Your task to perform on an android device: toggle notifications settings in the gmail app Image 0: 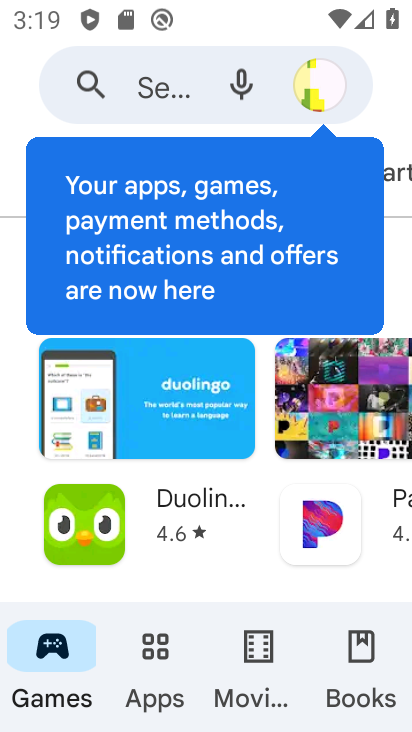
Step 0: press back button
Your task to perform on an android device: toggle notifications settings in the gmail app Image 1: 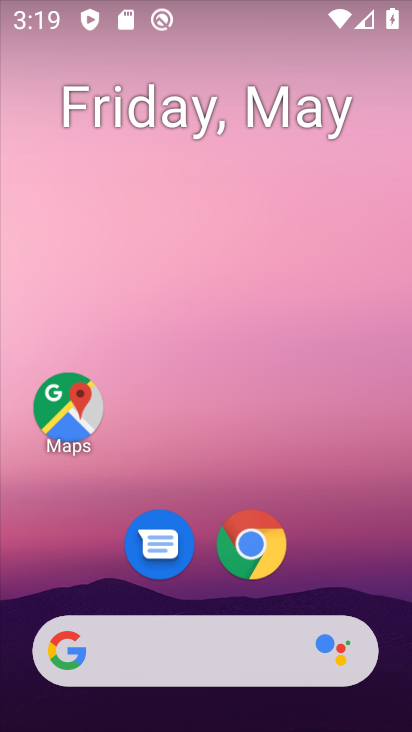
Step 1: drag from (257, 380) to (199, 124)
Your task to perform on an android device: toggle notifications settings in the gmail app Image 2: 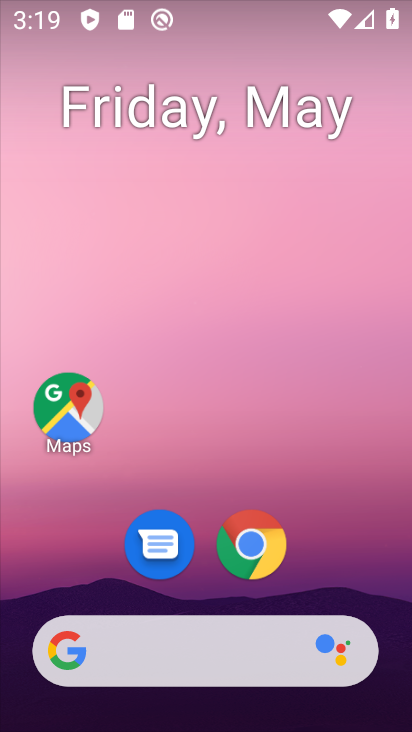
Step 2: drag from (270, 576) to (200, 2)
Your task to perform on an android device: toggle notifications settings in the gmail app Image 3: 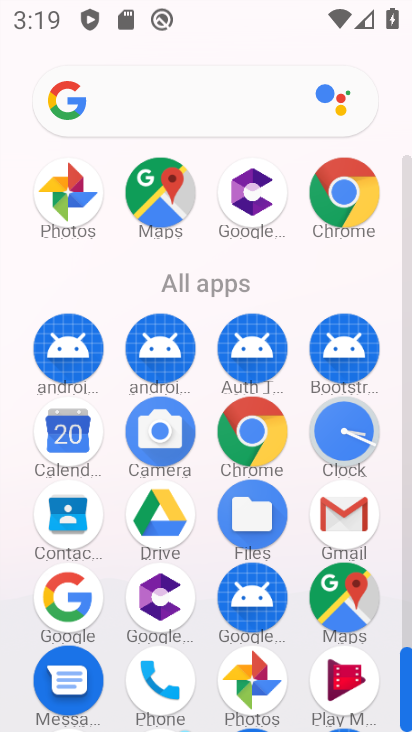
Step 3: click (354, 504)
Your task to perform on an android device: toggle notifications settings in the gmail app Image 4: 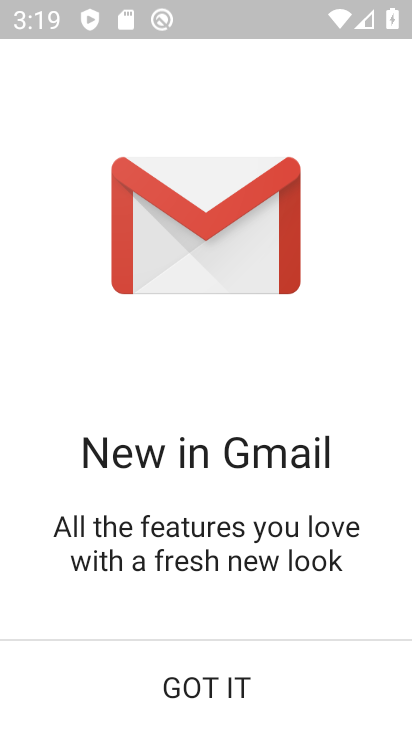
Step 4: click (299, 517)
Your task to perform on an android device: toggle notifications settings in the gmail app Image 5: 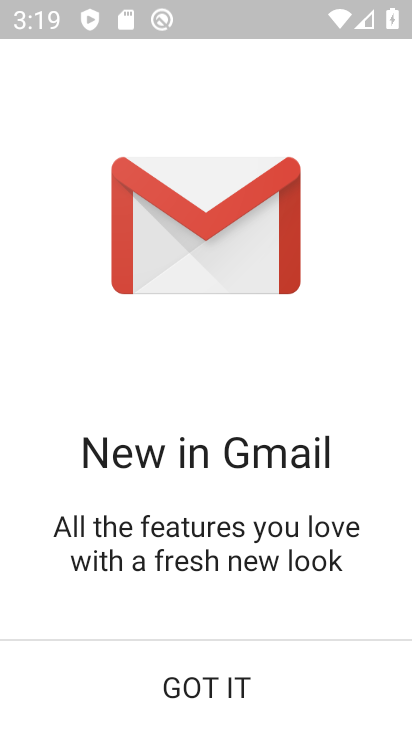
Step 5: click (299, 517)
Your task to perform on an android device: toggle notifications settings in the gmail app Image 6: 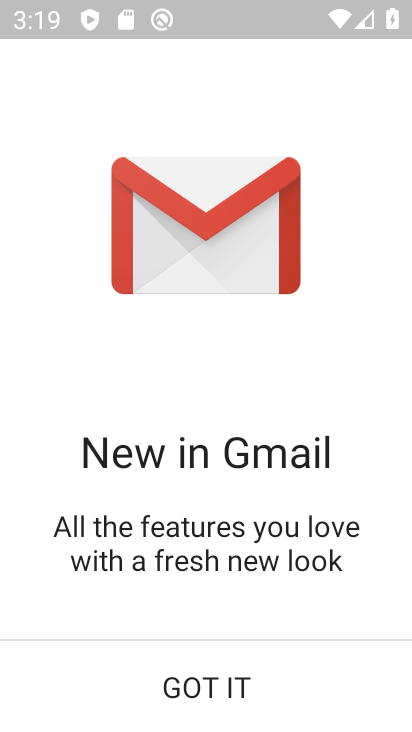
Step 6: click (205, 682)
Your task to perform on an android device: toggle notifications settings in the gmail app Image 7: 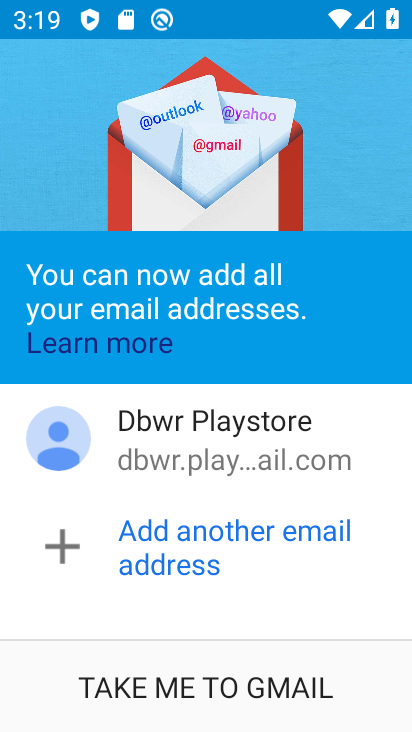
Step 7: click (195, 671)
Your task to perform on an android device: toggle notifications settings in the gmail app Image 8: 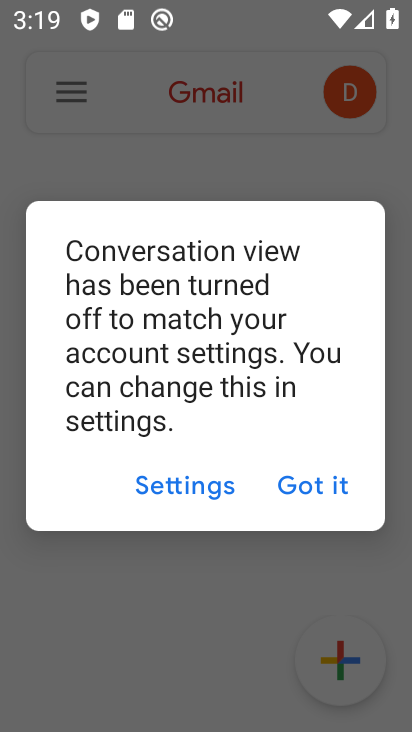
Step 8: click (300, 486)
Your task to perform on an android device: toggle notifications settings in the gmail app Image 9: 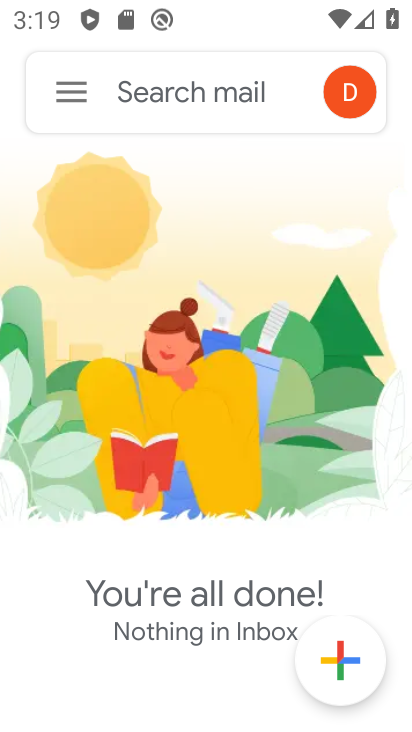
Step 9: click (66, 89)
Your task to perform on an android device: toggle notifications settings in the gmail app Image 10: 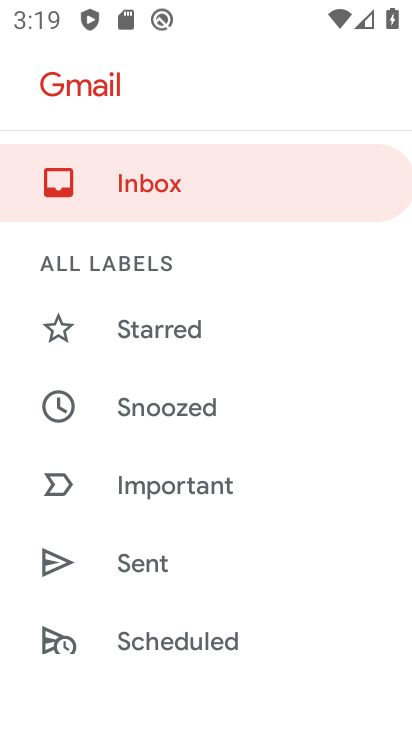
Step 10: drag from (208, 497) to (156, 200)
Your task to perform on an android device: toggle notifications settings in the gmail app Image 11: 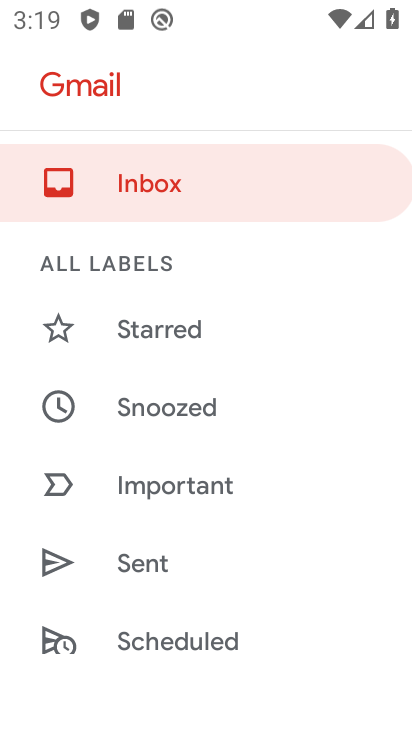
Step 11: drag from (192, 541) to (195, 168)
Your task to perform on an android device: toggle notifications settings in the gmail app Image 12: 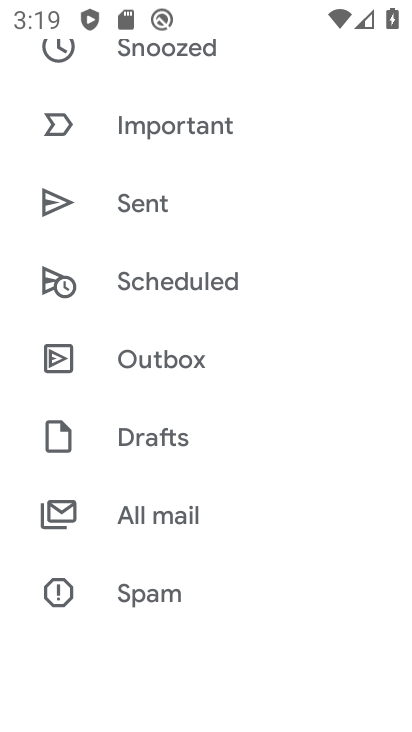
Step 12: drag from (167, 427) to (136, 156)
Your task to perform on an android device: toggle notifications settings in the gmail app Image 13: 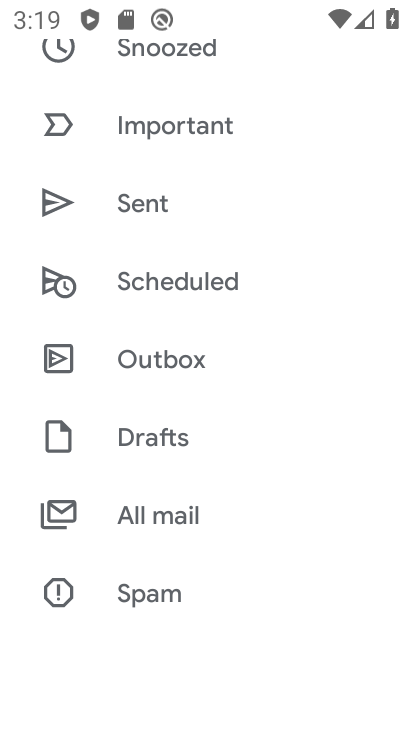
Step 13: drag from (179, 541) to (142, 204)
Your task to perform on an android device: toggle notifications settings in the gmail app Image 14: 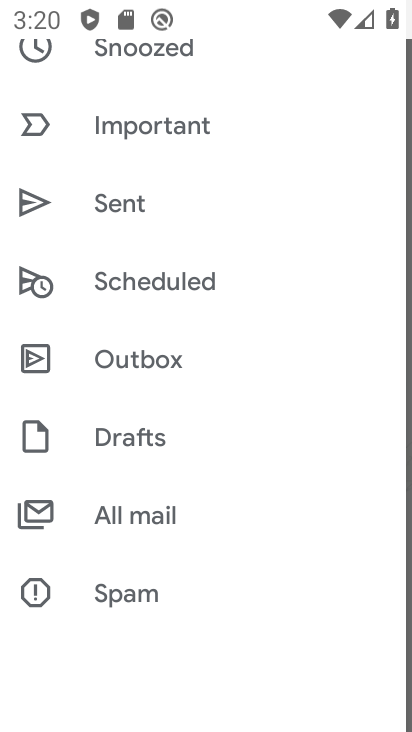
Step 14: drag from (160, 443) to (171, 146)
Your task to perform on an android device: toggle notifications settings in the gmail app Image 15: 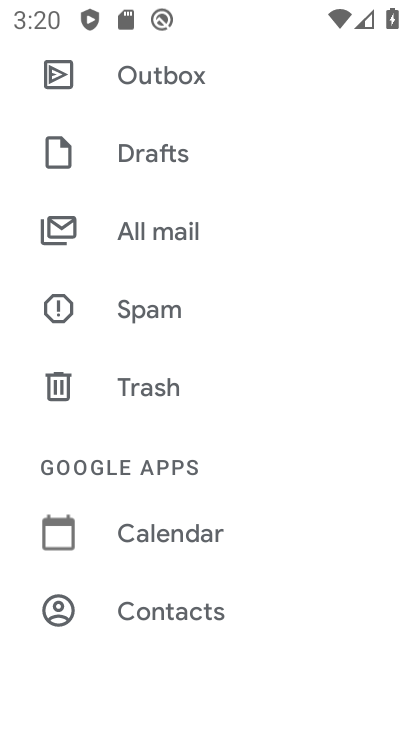
Step 15: drag from (145, 559) to (194, 194)
Your task to perform on an android device: toggle notifications settings in the gmail app Image 16: 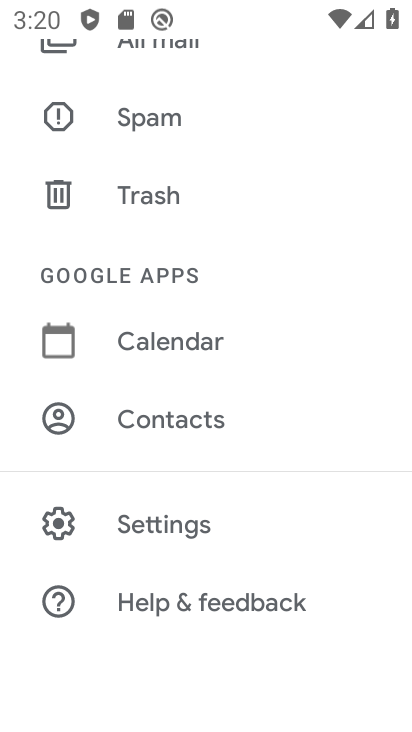
Step 16: click (142, 520)
Your task to perform on an android device: toggle notifications settings in the gmail app Image 17: 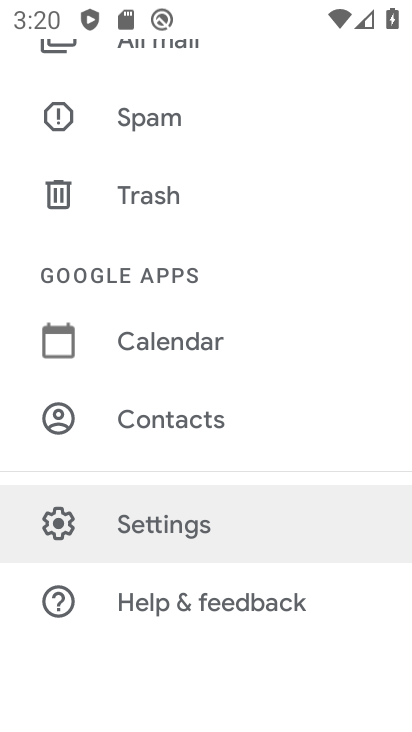
Step 17: click (142, 520)
Your task to perform on an android device: toggle notifications settings in the gmail app Image 18: 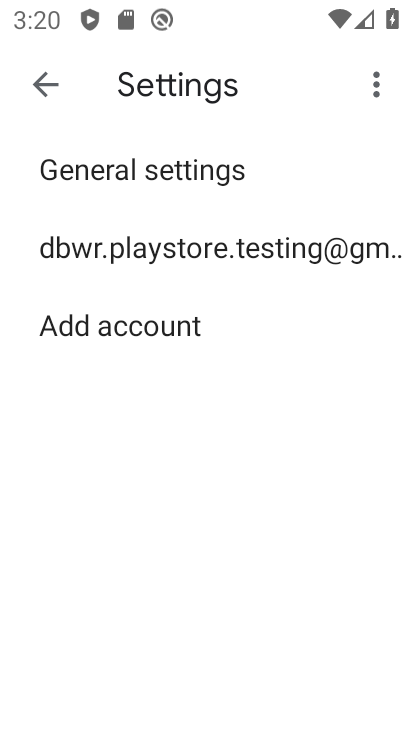
Step 18: click (156, 249)
Your task to perform on an android device: toggle notifications settings in the gmail app Image 19: 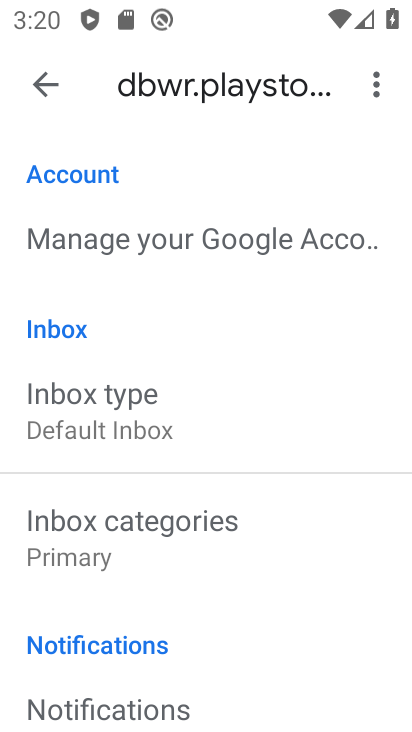
Step 19: drag from (121, 587) to (135, 246)
Your task to perform on an android device: toggle notifications settings in the gmail app Image 20: 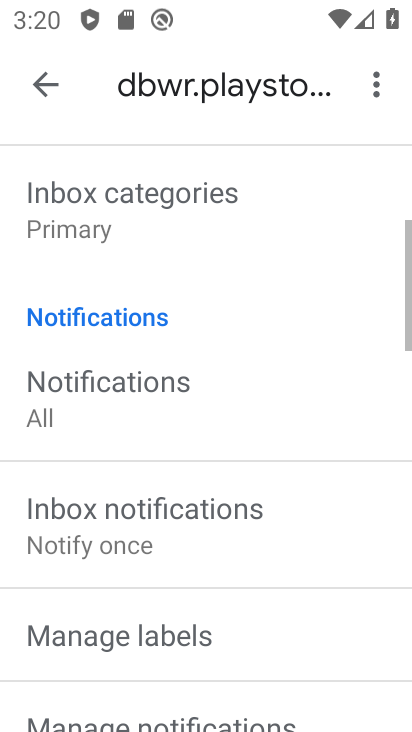
Step 20: click (191, 197)
Your task to perform on an android device: toggle notifications settings in the gmail app Image 21: 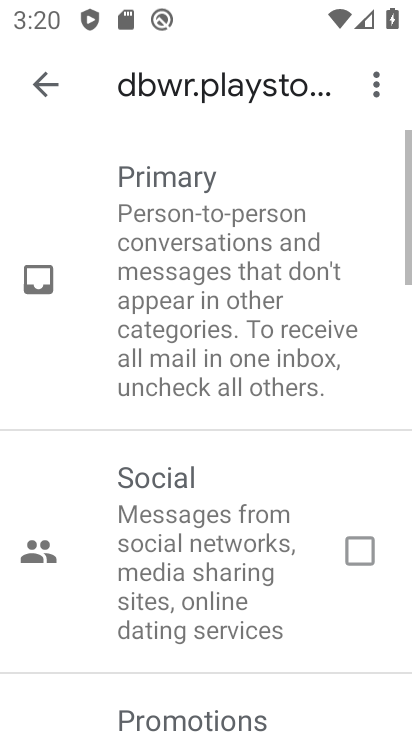
Step 21: click (74, 381)
Your task to perform on an android device: toggle notifications settings in the gmail app Image 22: 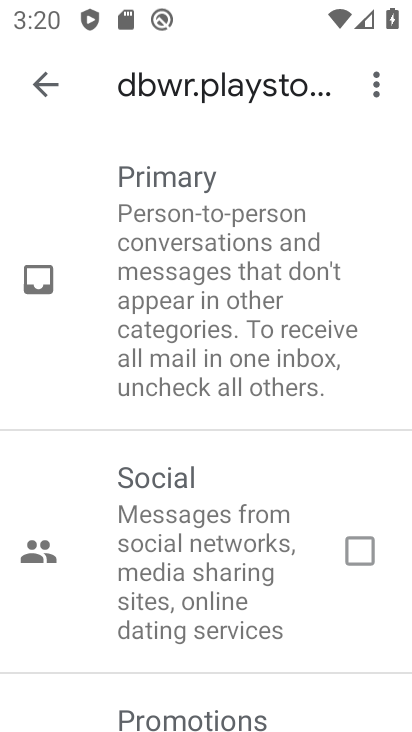
Step 22: click (36, 80)
Your task to perform on an android device: toggle notifications settings in the gmail app Image 23: 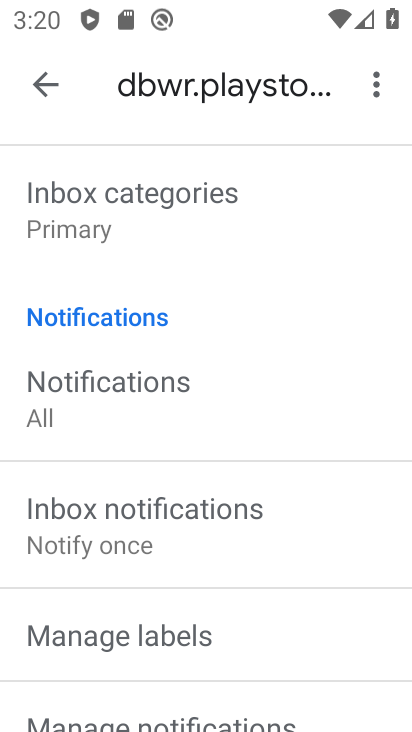
Step 23: click (75, 387)
Your task to perform on an android device: toggle notifications settings in the gmail app Image 24: 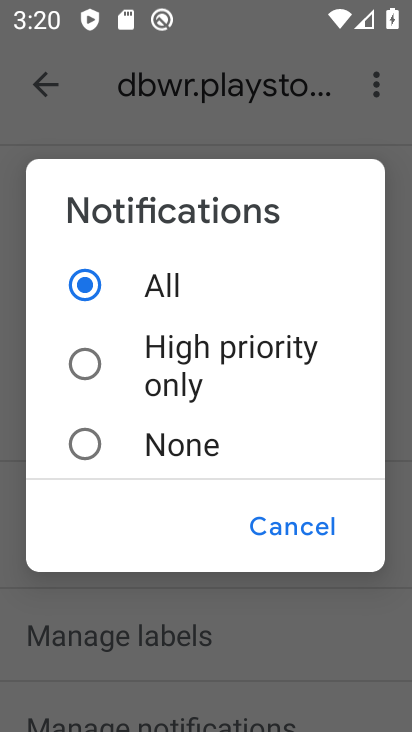
Step 24: click (77, 358)
Your task to perform on an android device: toggle notifications settings in the gmail app Image 25: 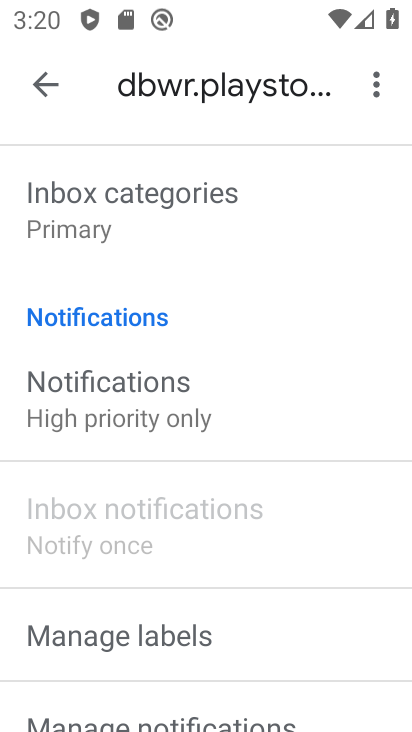
Step 25: task complete